Your task to perform on an android device: toggle airplane mode Image 0: 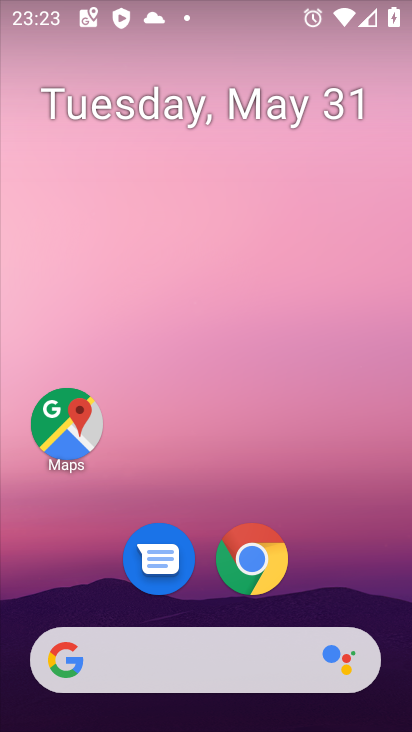
Step 0: drag from (328, 553) to (327, 96)
Your task to perform on an android device: toggle airplane mode Image 1: 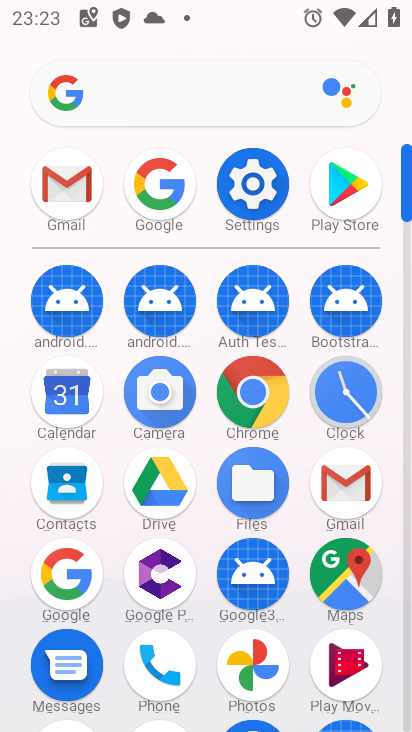
Step 1: click (245, 187)
Your task to perform on an android device: toggle airplane mode Image 2: 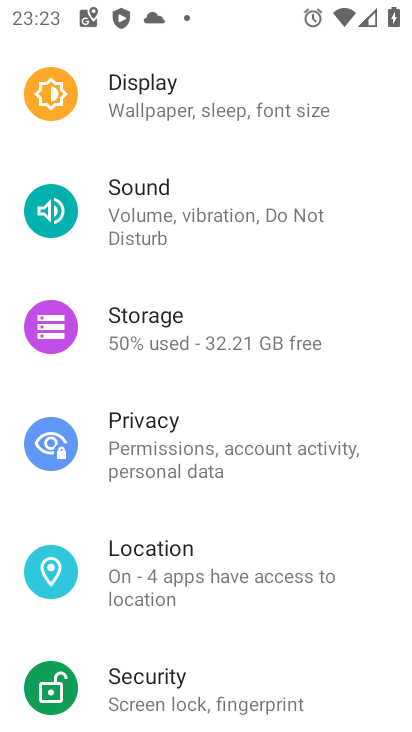
Step 2: drag from (219, 134) to (218, 651)
Your task to perform on an android device: toggle airplane mode Image 3: 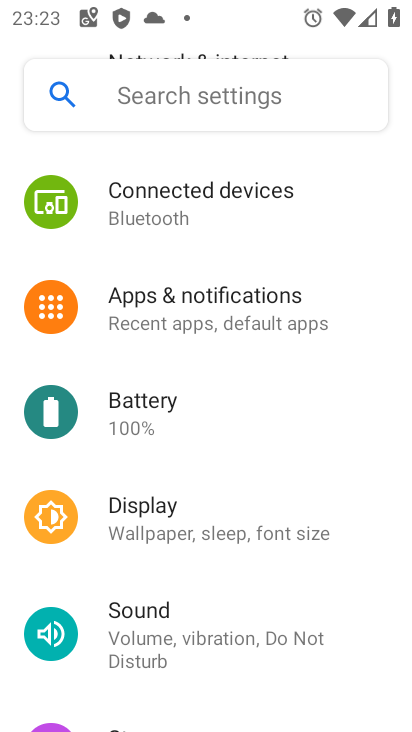
Step 3: drag from (210, 174) to (243, 616)
Your task to perform on an android device: toggle airplane mode Image 4: 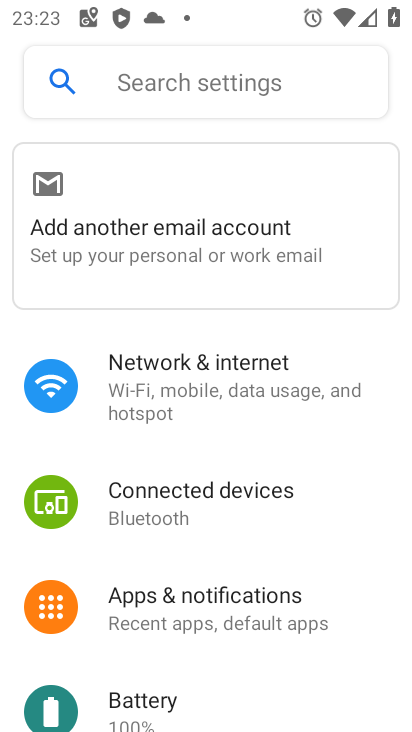
Step 4: click (157, 395)
Your task to perform on an android device: toggle airplane mode Image 5: 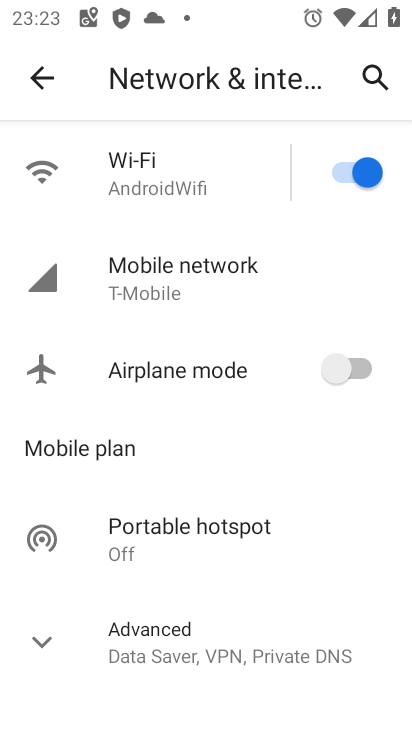
Step 5: click (362, 363)
Your task to perform on an android device: toggle airplane mode Image 6: 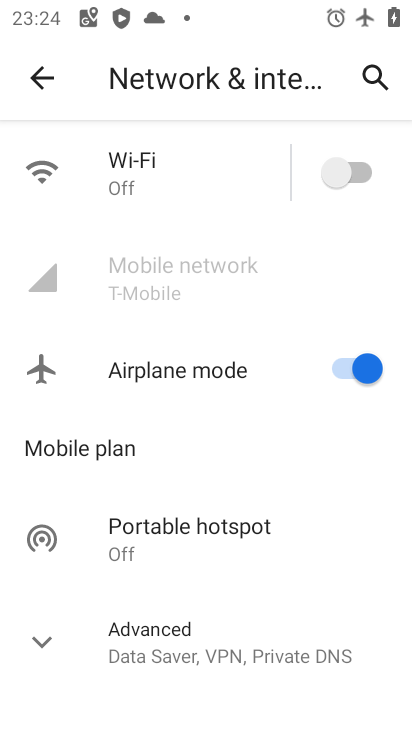
Step 6: task complete